Your task to perform on an android device: Open the phone app and click the voicemail tab. Image 0: 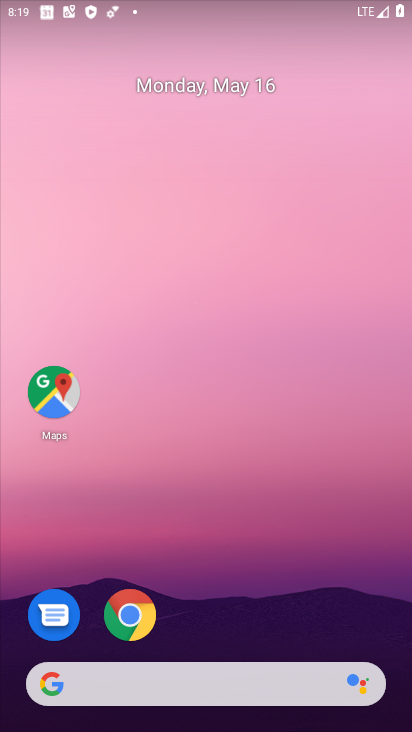
Step 0: drag from (230, 536) to (277, 8)
Your task to perform on an android device: Open the phone app and click the voicemail tab. Image 1: 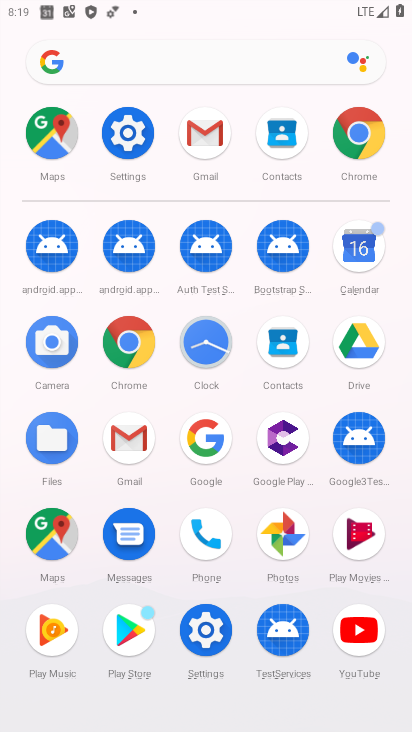
Step 1: click (194, 524)
Your task to perform on an android device: Open the phone app and click the voicemail tab. Image 2: 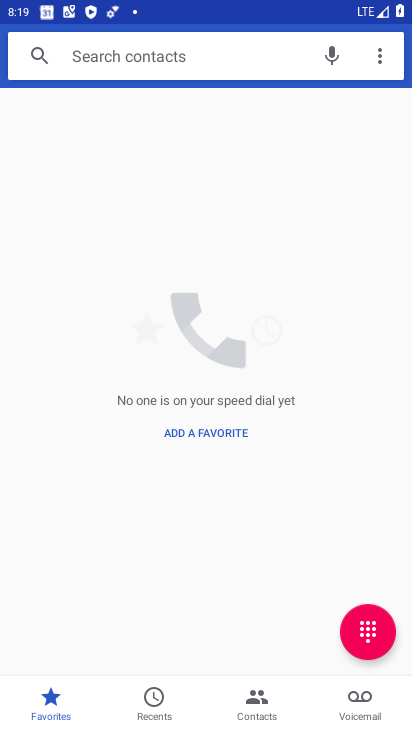
Step 2: click (352, 716)
Your task to perform on an android device: Open the phone app and click the voicemail tab. Image 3: 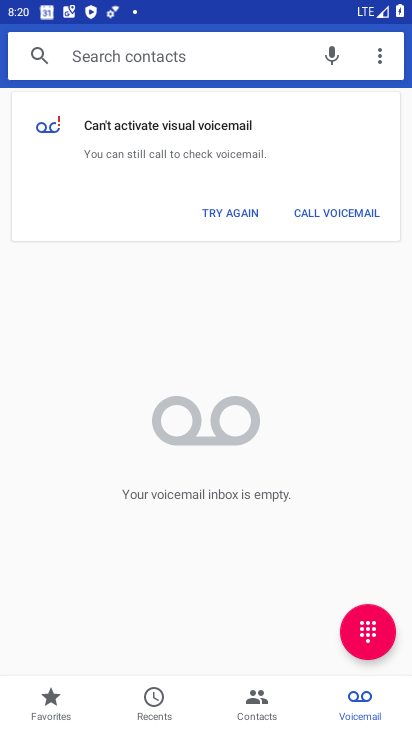
Step 3: task complete